Your task to perform on an android device: open a new tab in the chrome app Image 0: 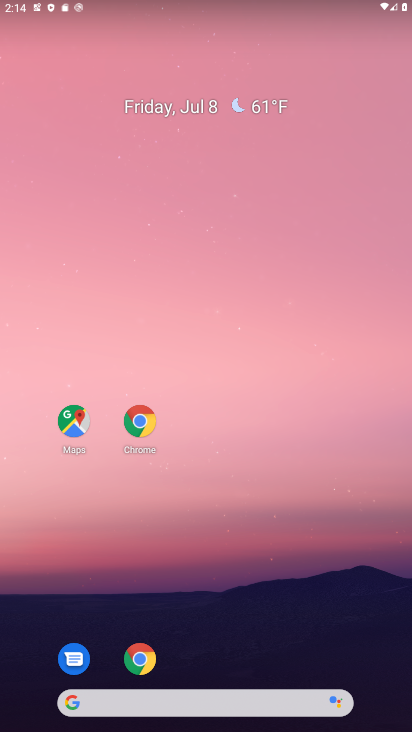
Step 0: drag from (219, 658) to (163, 110)
Your task to perform on an android device: open a new tab in the chrome app Image 1: 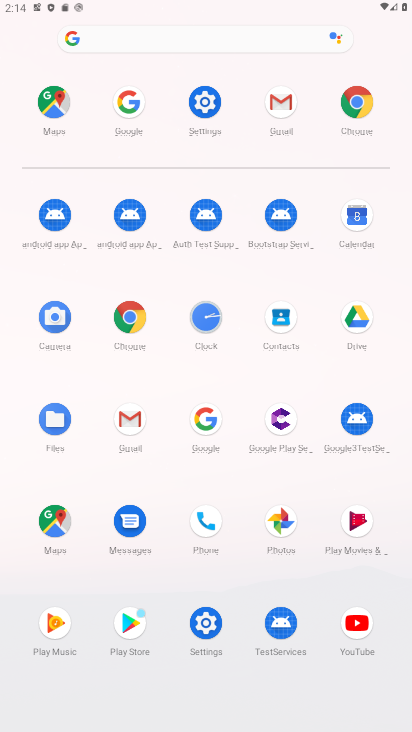
Step 1: click (130, 316)
Your task to perform on an android device: open a new tab in the chrome app Image 2: 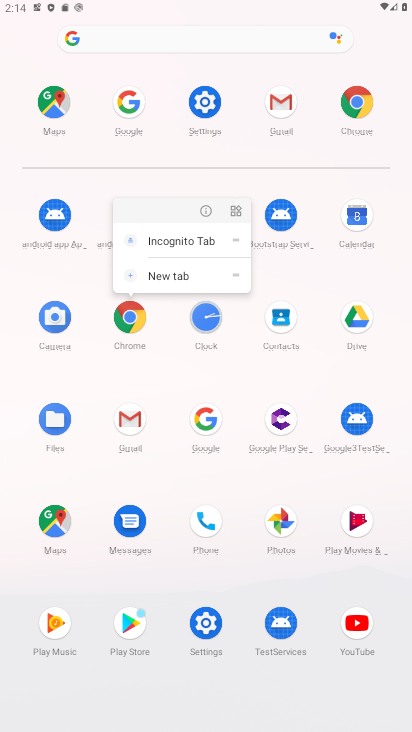
Step 2: click (130, 317)
Your task to perform on an android device: open a new tab in the chrome app Image 3: 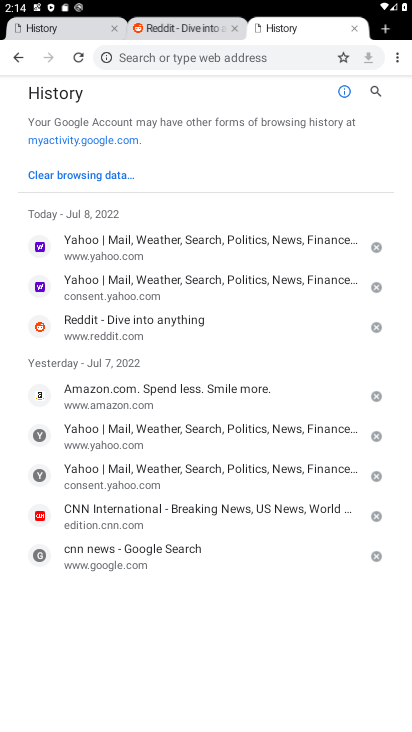
Step 3: click (378, 29)
Your task to perform on an android device: open a new tab in the chrome app Image 4: 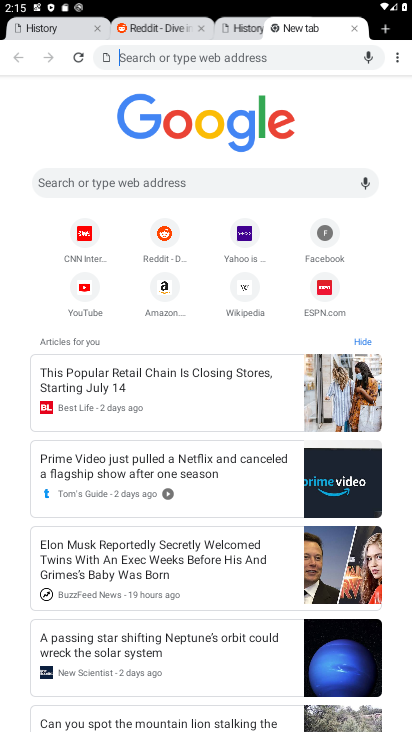
Step 4: task complete